Your task to perform on an android device: Turn on the flashlight Image 0: 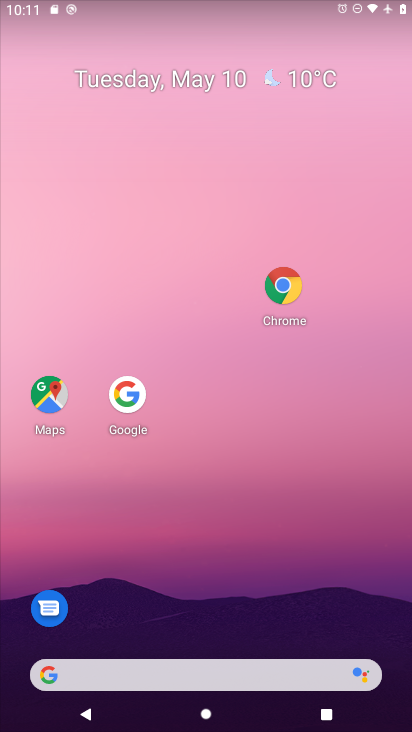
Step 0: drag from (260, 1) to (225, 403)
Your task to perform on an android device: Turn on the flashlight Image 1: 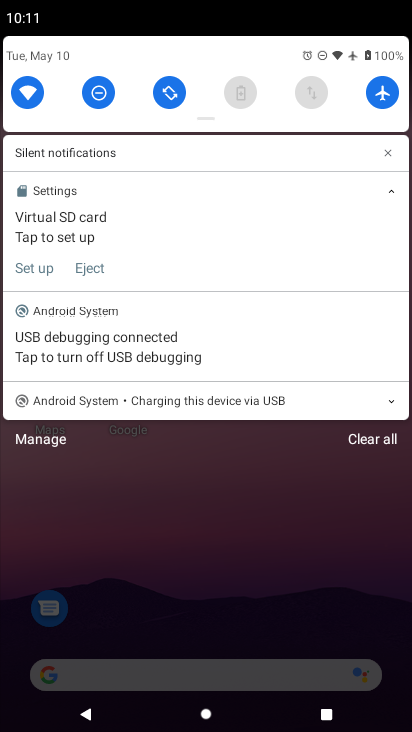
Step 1: task complete